Your task to perform on an android device: add a contact Image 0: 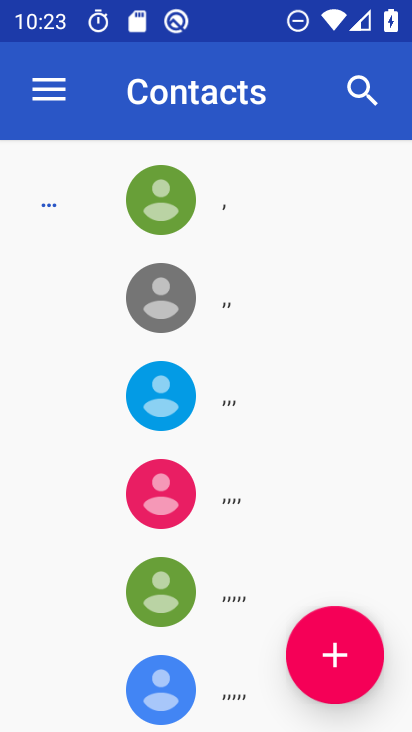
Step 0: press home button
Your task to perform on an android device: add a contact Image 1: 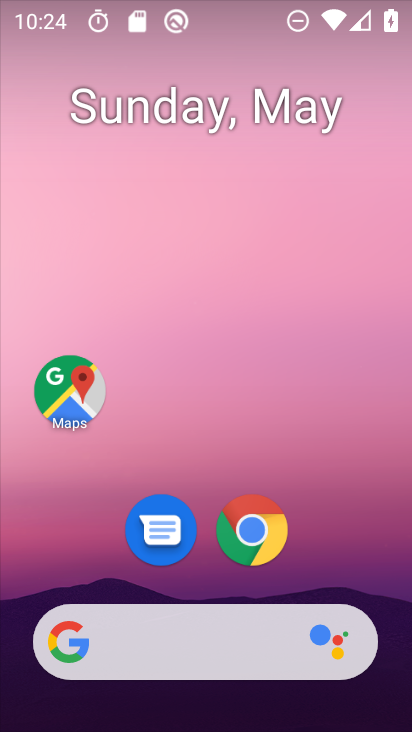
Step 1: drag from (229, 667) to (326, 81)
Your task to perform on an android device: add a contact Image 2: 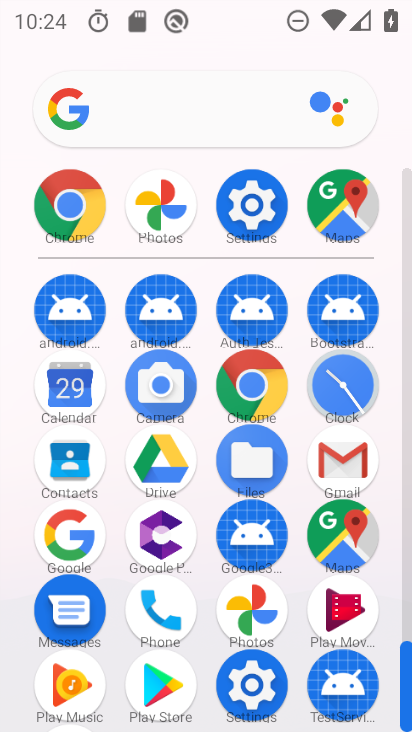
Step 2: click (171, 615)
Your task to perform on an android device: add a contact Image 3: 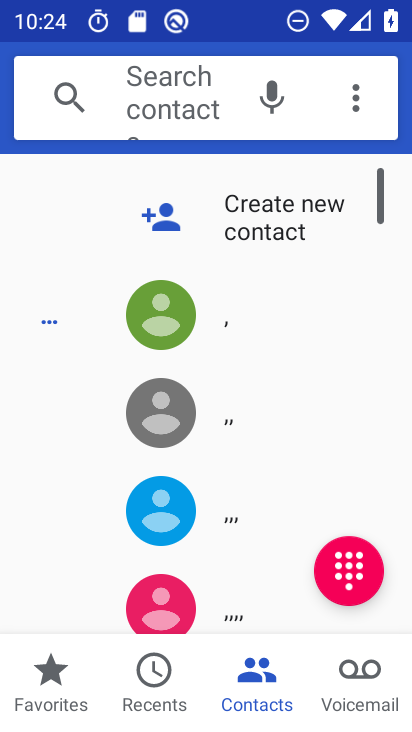
Step 3: click (224, 230)
Your task to perform on an android device: add a contact Image 4: 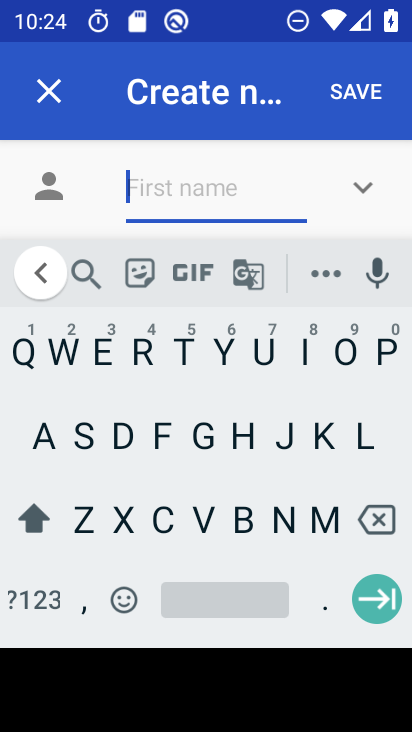
Step 4: click (197, 380)
Your task to perform on an android device: add a contact Image 5: 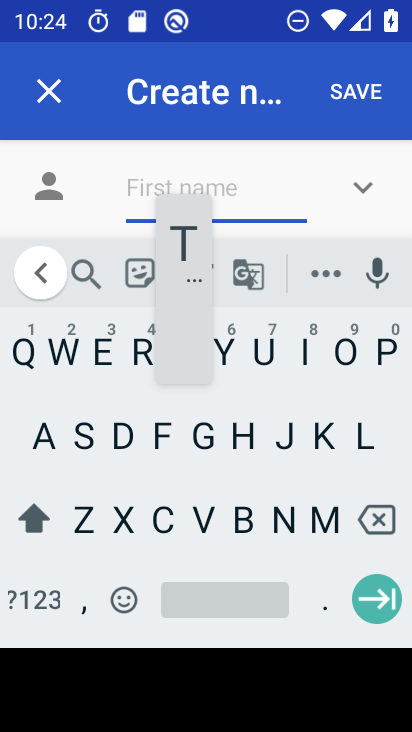
Step 5: click (46, 440)
Your task to perform on an android device: add a contact Image 6: 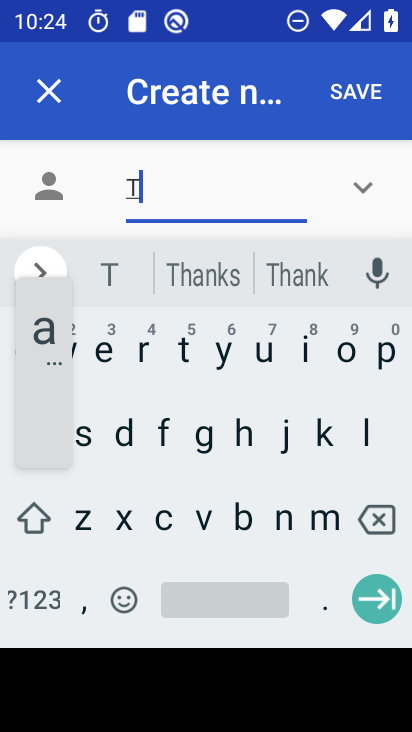
Step 6: click (130, 426)
Your task to perform on an android device: add a contact Image 7: 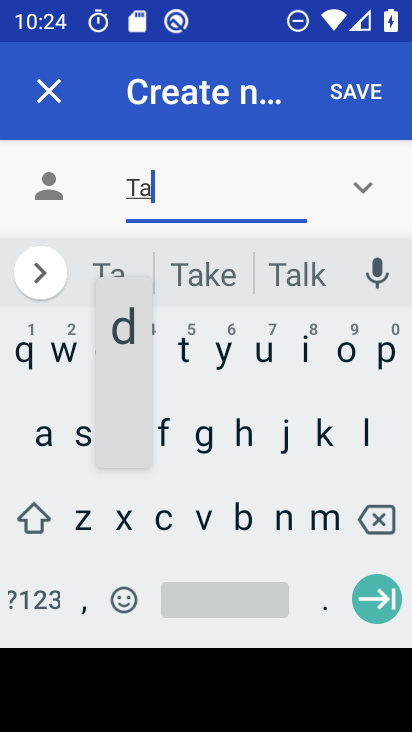
Step 7: drag from (148, 487) to (191, 534)
Your task to perform on an android device: add a contact Image 8: 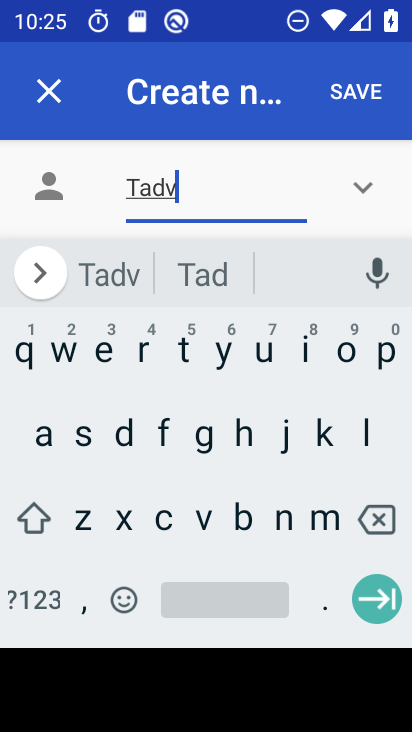
Step 8: click (352, 117)
Your task to perform on an android device: add a contact Image 9: 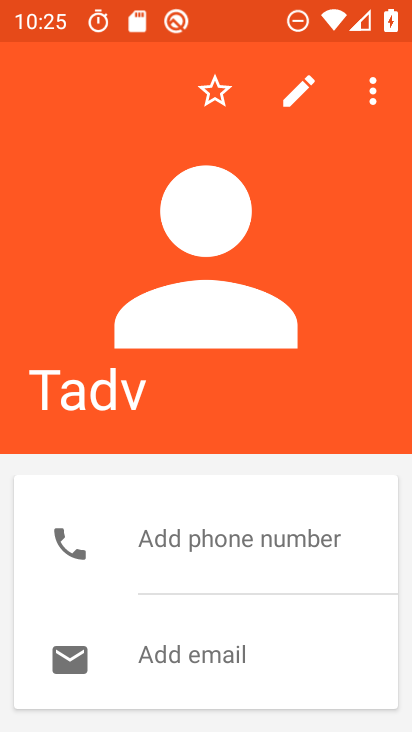
Step 9: task complete